Your task to perform on an android device: check data usage Image 0: 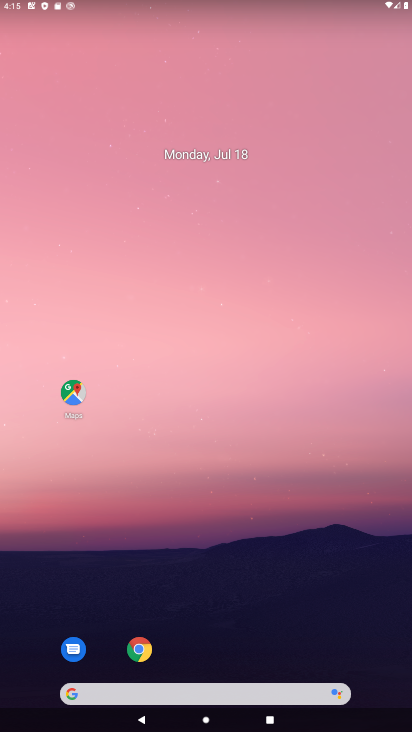
Step 0: drag from (291, 10) to (308, 517)
Your task to perform on an android device: check data usage Image 1: 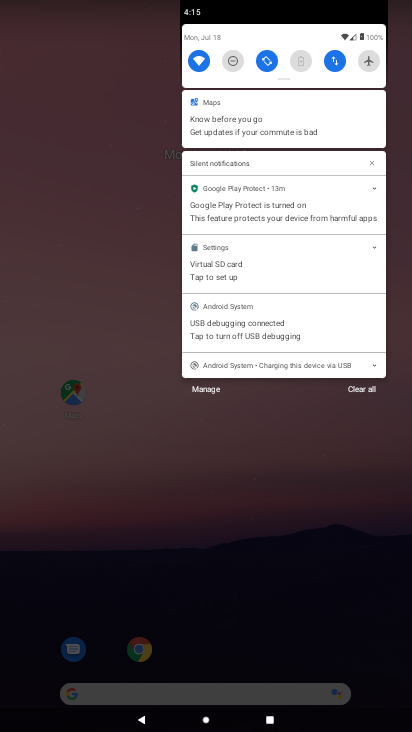
Step 1: click (337, 60)
Your task to perform on an android device: check data usage Image 2: 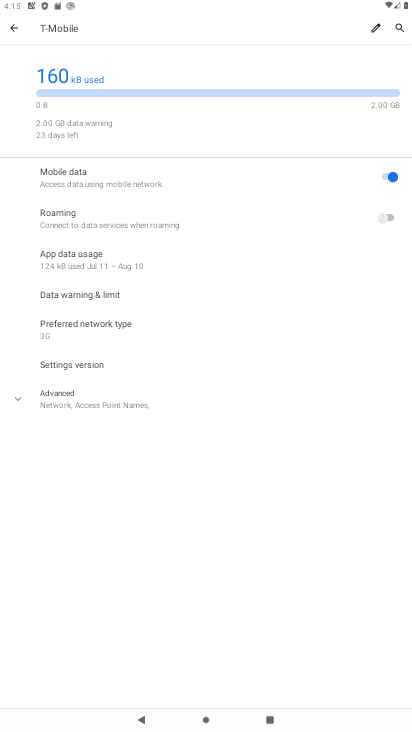
Step 2: task complete